Your task to perform on an android device: Go to network settings Image 0: 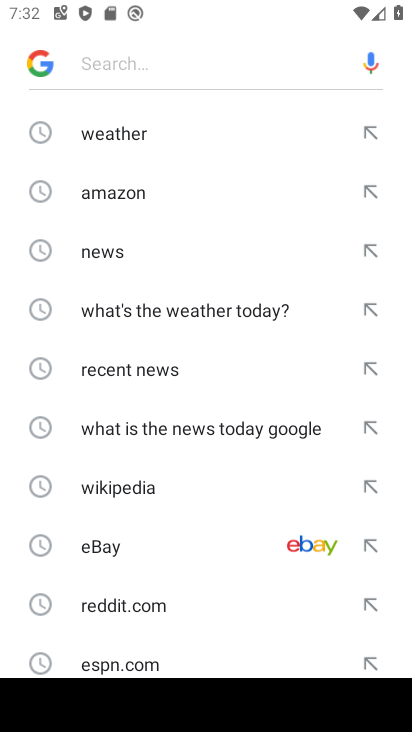
Step 0: press home button
Your task to perform on an android device: Go to network settings Image 1: 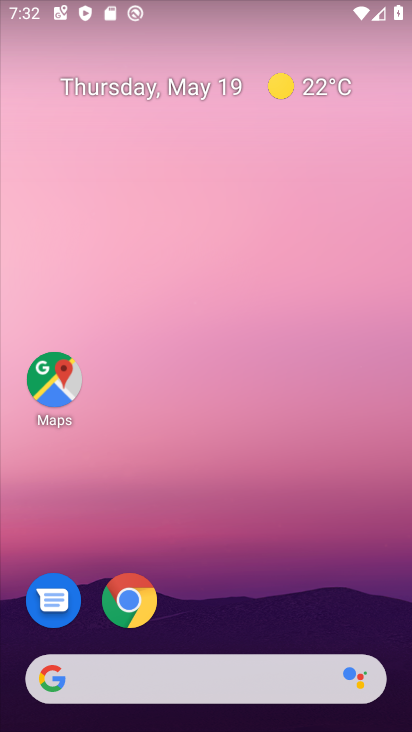
Step 1: drag from (396, 613) to (375, 161)
Your task to perform on an android device: Go to network settings Image 2: 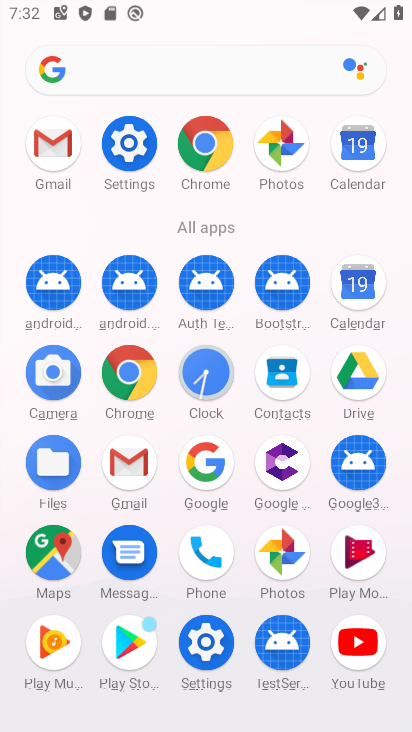
Step 2: click (192, 649)
Your task to perform on an android device: Go to network settings Image 3: 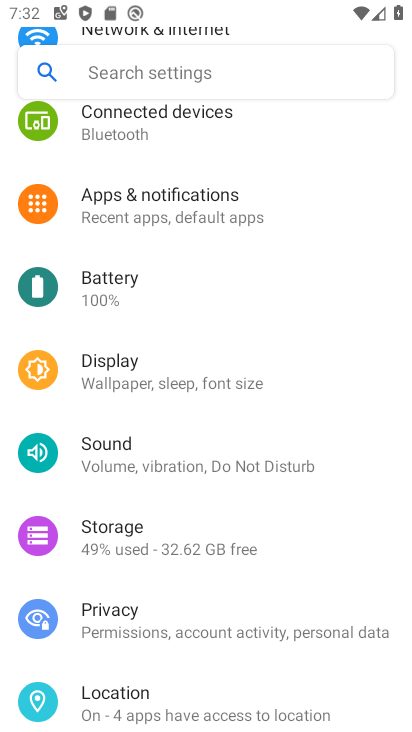
Step 3: drag from (261, 235) to (262, 629)
Your task to perform on an android device: Go to network settings Image 4: 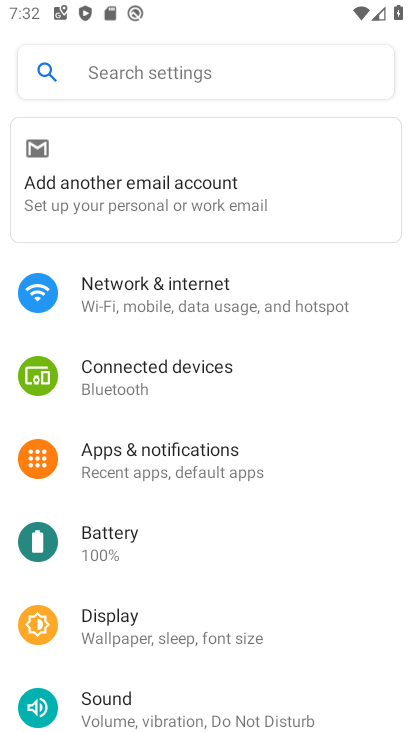
Step 4: click (141, 286)
Your task to perform on an android device: Go to network settings Image 5: 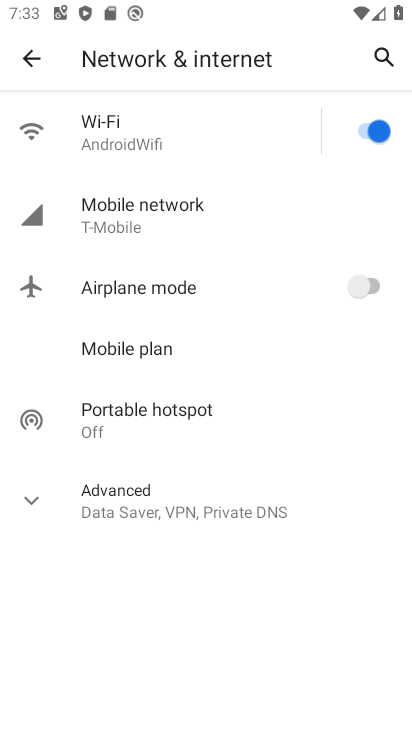
Step 5: task complete